Your task to perform on an android device: toggle location history Image 0: 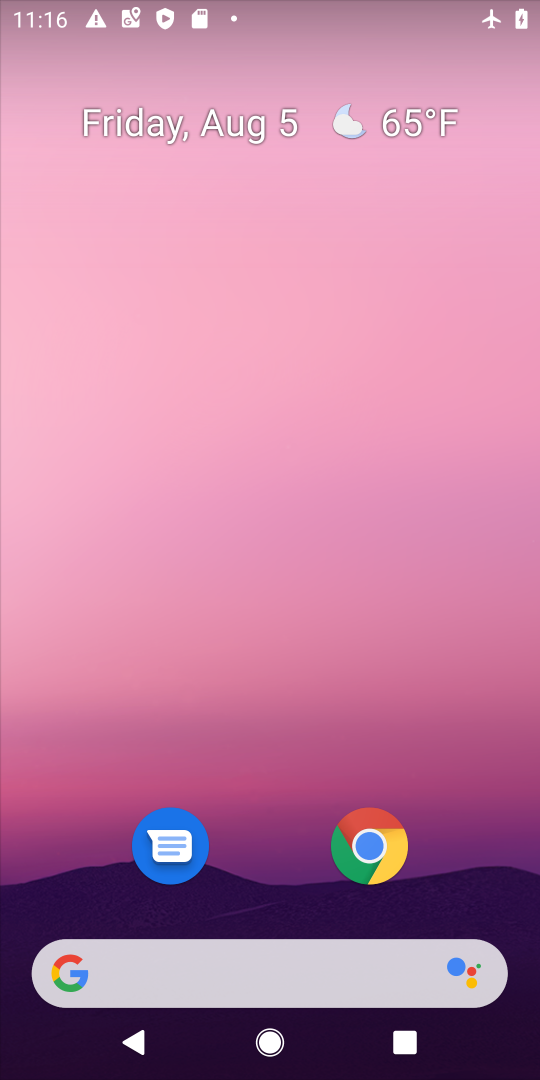
Step 0: drag from (282, 863) to (238, 0)
Your task to perform on an android device: toggle location history Image 1: 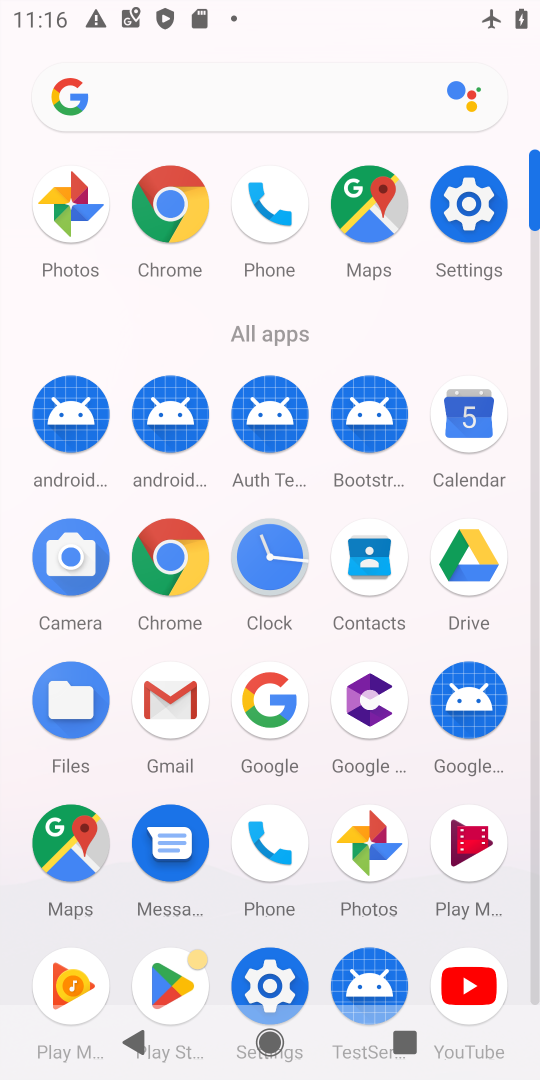
Step 1: click (478, 242)
Your task to perform on an android device: toggle location history Image 2: 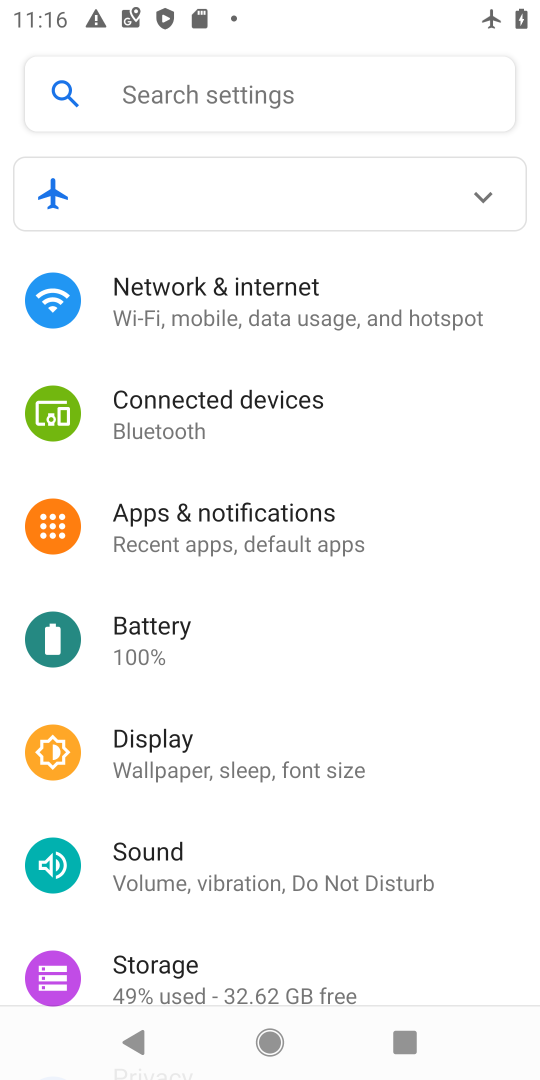
Step 2: drag from (308, 776) to (290, 109)
Your task to perform on an android device: toggle location history Image 3: 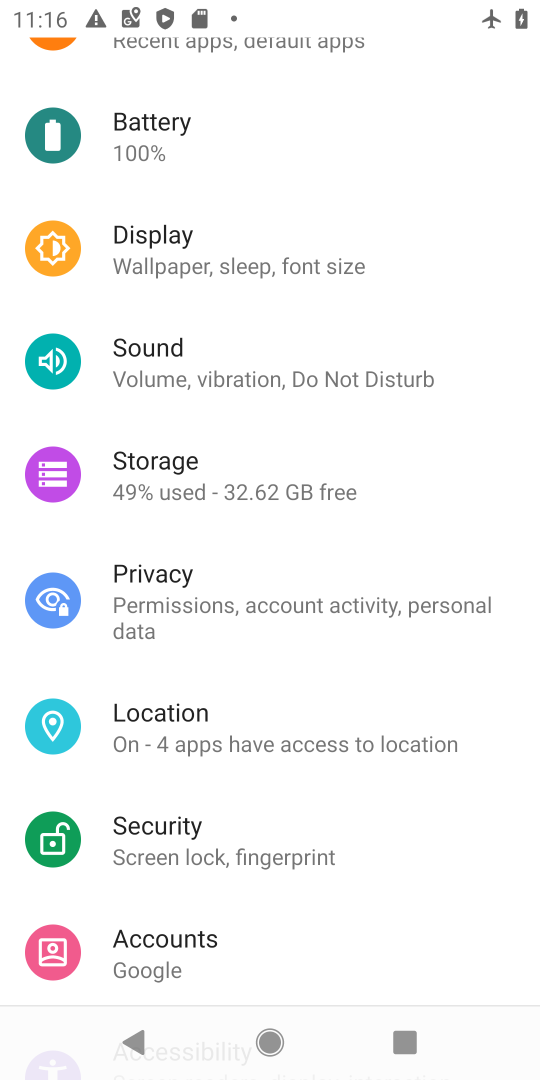
Step 3: click (228, 714)
Your task to perform on an android device: toggle location history Image 4: 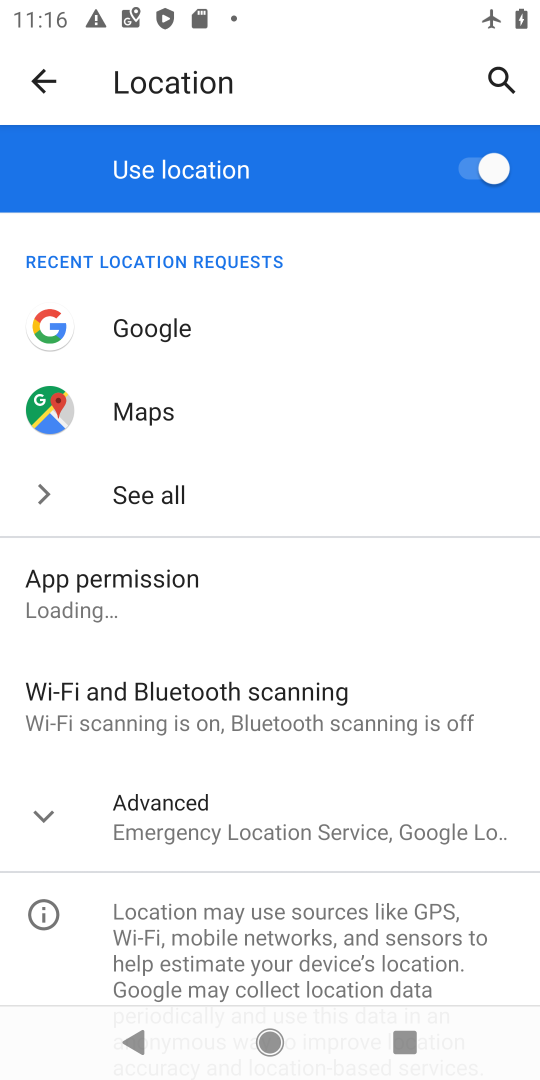
Step 4: click (45, 809)
Your task to perform on an android device: toggle location history Image 5: 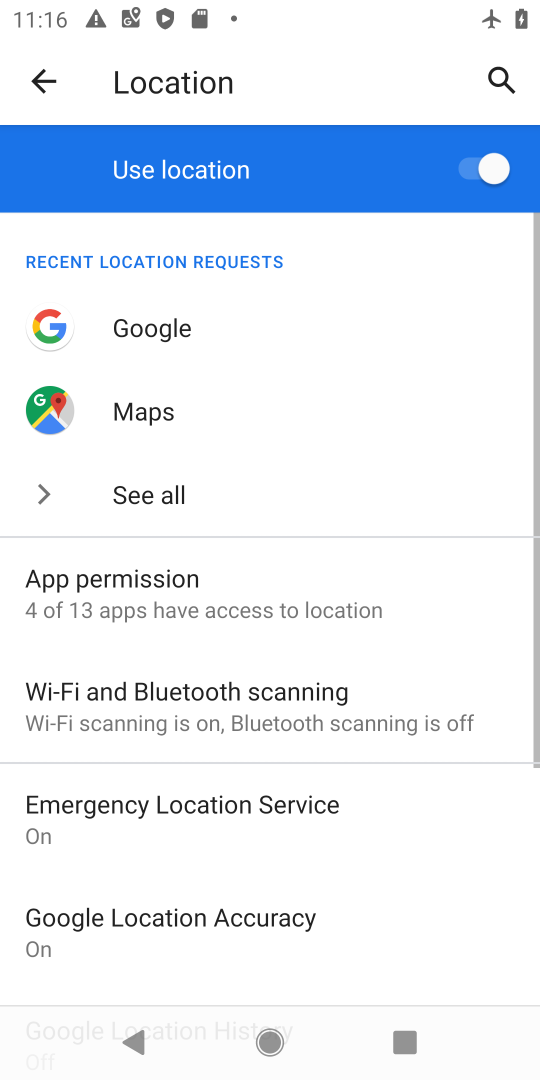
Step 5: drag from (358, 873) to (295, 293)
Your task to perform on an android device: toggle location history Image 6: 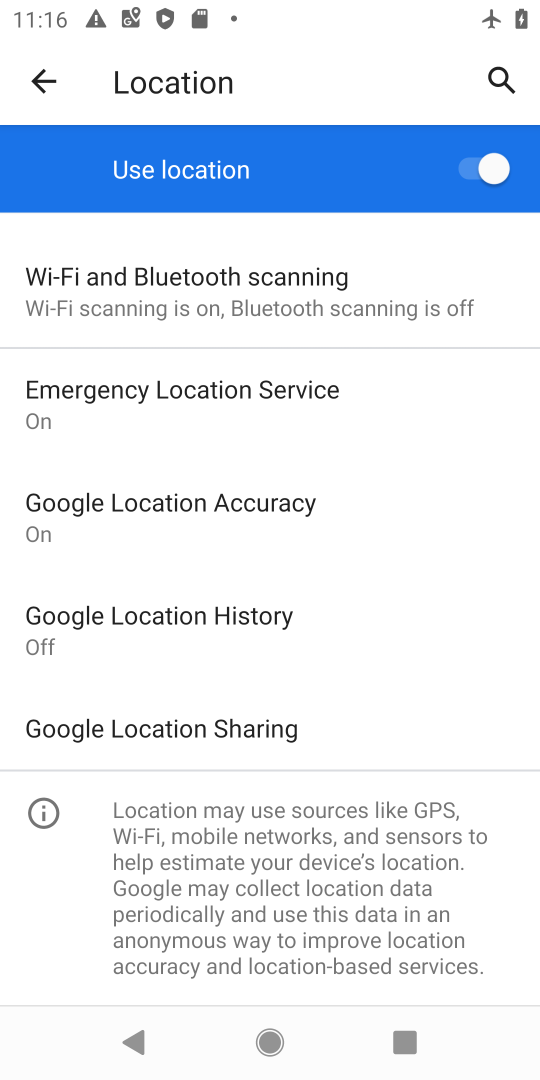
Step 6: click (263, 613)
Your task to perform on an android device: toggle location history Image 7: 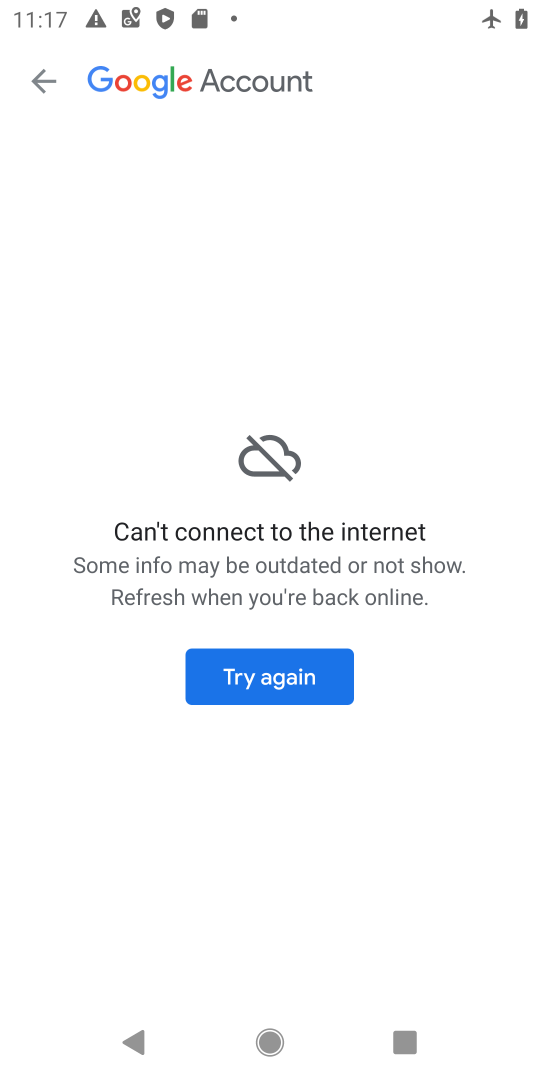
Step 7: click (287, 674)
Your task to perform on an android device: toggle location history Image 8: 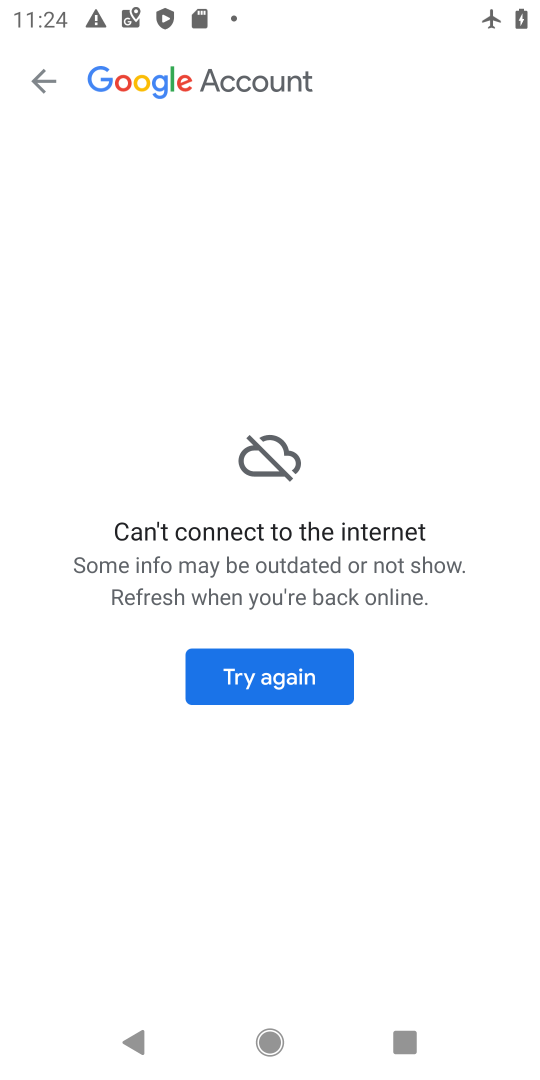
Step 8: task complete